Your task to perform on an android device: set the timer Image 0: 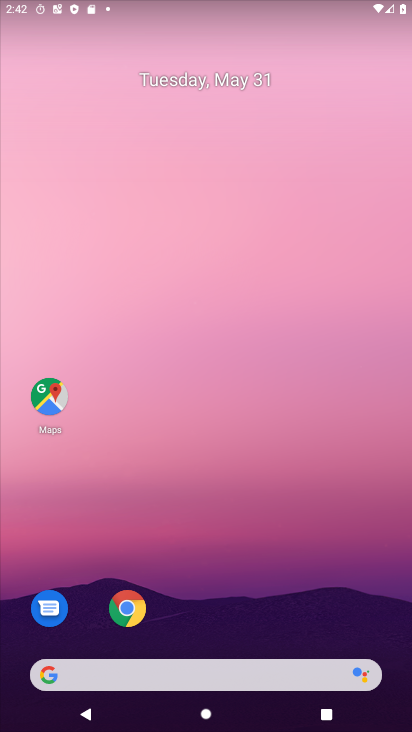
Step 0: drag from (219, 618) to (258, 6)
Your task to perform on an android device: set the timer Image 1: 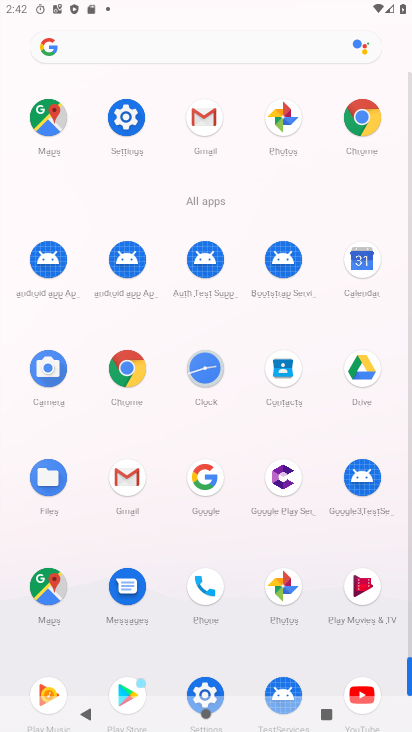
Step 1: click (200, 394)
Your task to perform on an android device: set the timer Image 2: 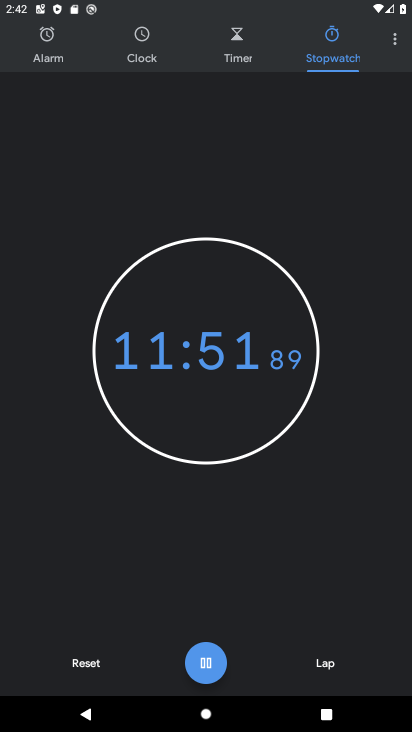
Step 2: click (226, 47)
Your task to perform on an android device: set the timer Image 3: 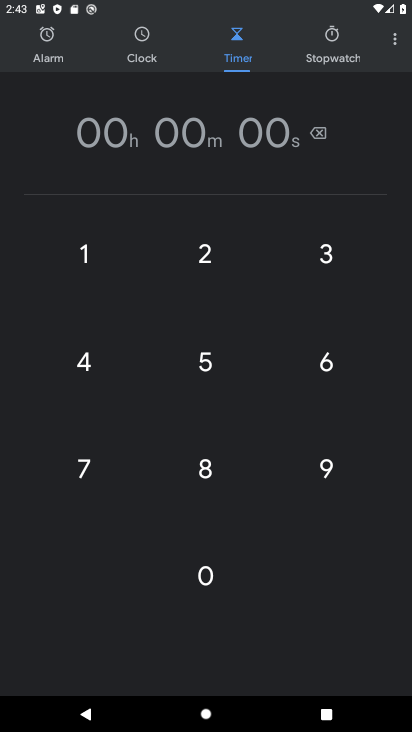
Step 3: click (101, 360)
Your task to perform on an android device: set the timer Image 4: 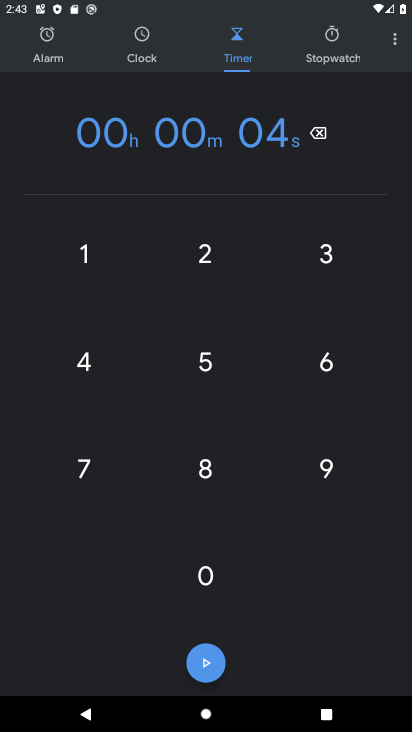
Step 4: click (209, 365)
Your task to perform on an android device: set the timer Image 5: 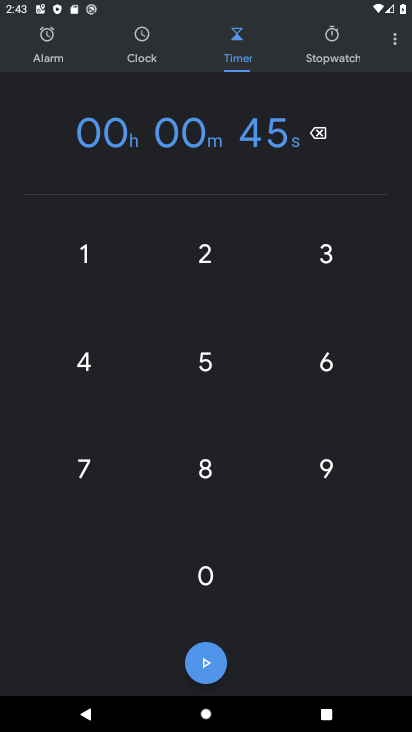
Step 5: click (210, 244)
Your task to perform on an android device: set the timer Image 6: 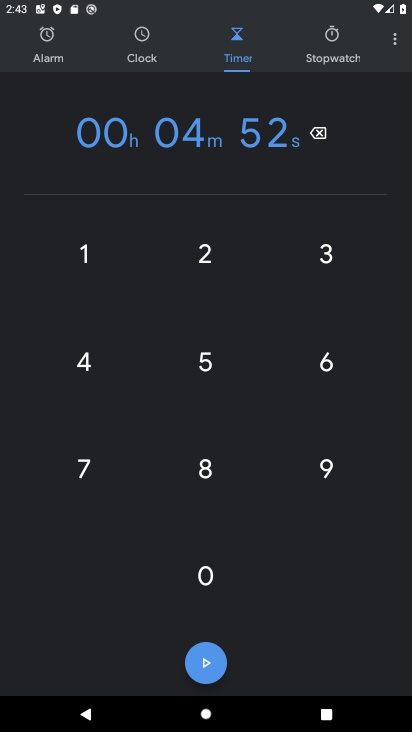
Step 6: click (322, 245)
Your task to perform on an android device: set the timer Image 7: 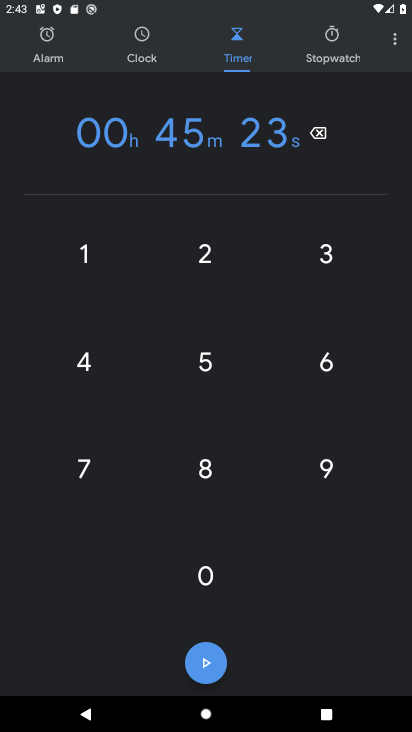
Step 7: click (218, 650)
Your task to perform on an android device: set the timer Image 8: 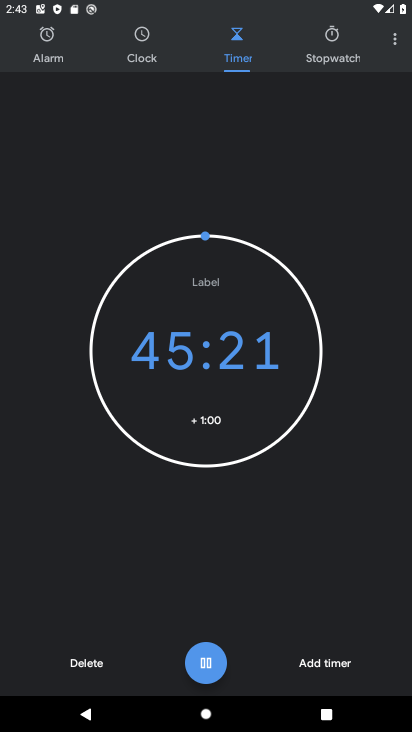
Step 8: task complete